Your task to perform on an android device: Go to notification settings Image 0: 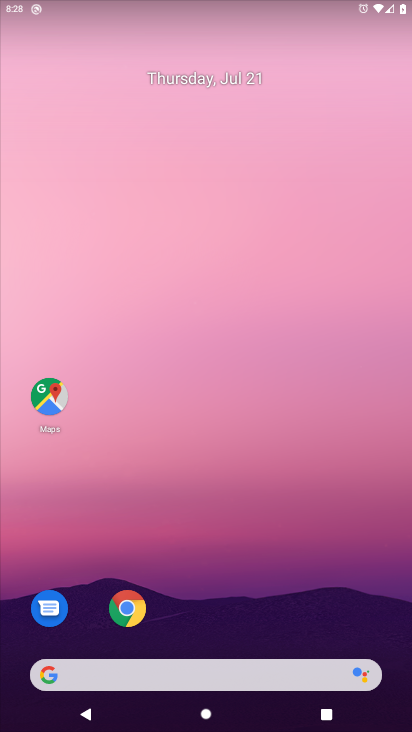
Step 0: drag from (36, 707) to (227, 249)
Your task to perform on an android device: Go to notification settings Image 1: 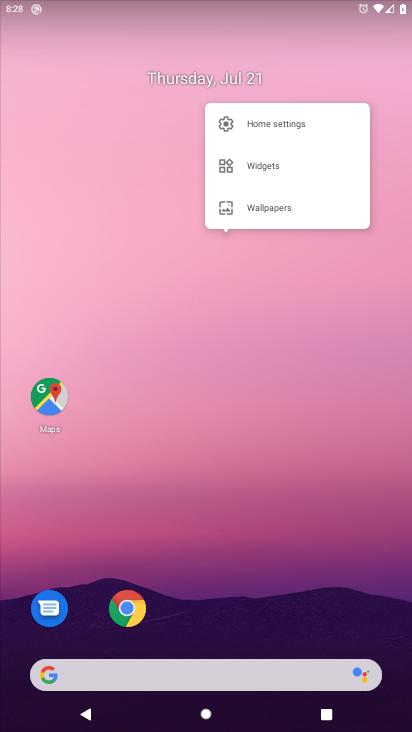
Step 1: drag from (31, 692) to (250, 0)
Your task to perform on an android device: Go to notification settings Image 2: 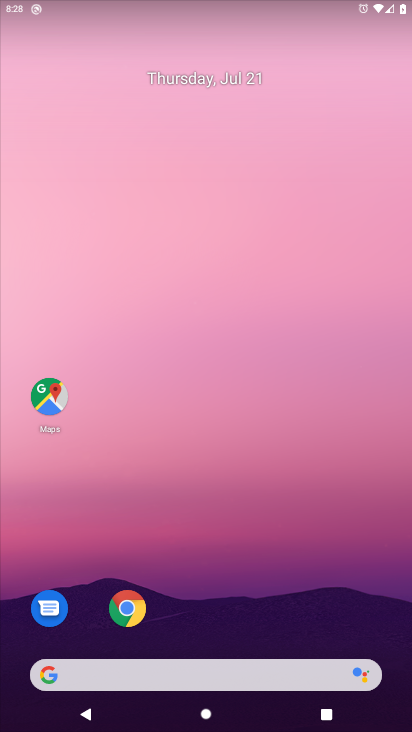
Step 2: drag from (14, 701) to (250, 175)
Your task to perform on an android device: Go to notification settings Image 3: 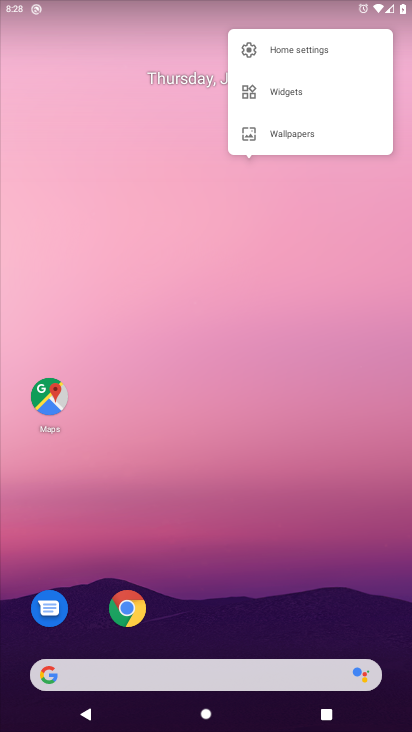
Step 3: drag from (15, 680) to (137, 11)
Your task to perform on an android device: Go to notification settings Image 4: 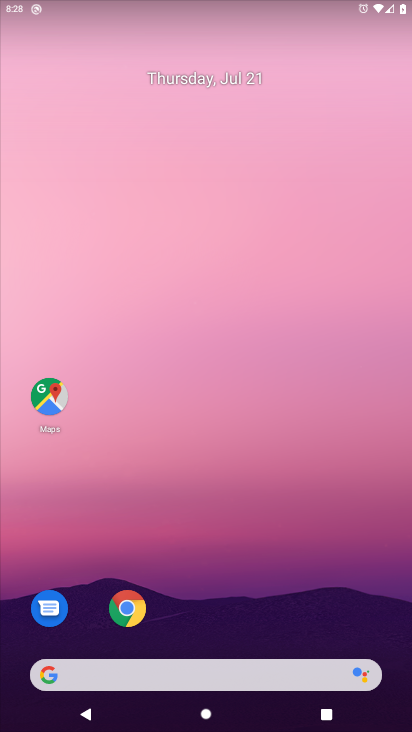
Step 4: drag from (23, 686) to (235, 262)
Your task to perform on an android device: Go to notification settings Image 5: 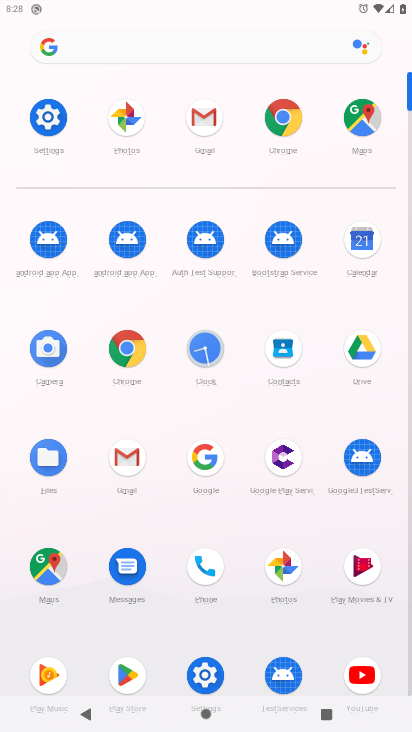
Step 5: click (189, 673)
Your task to perform on an android device: Go to notification settings Image 6: 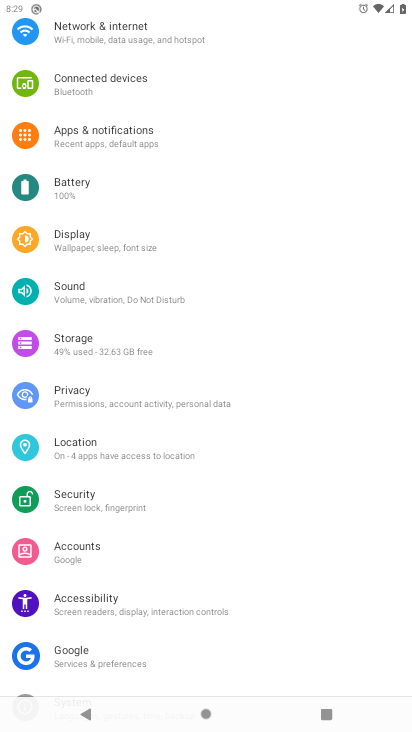
Step 6: click (119, 136)
Your task to perform on an android device: Go to notification settings Image 7: 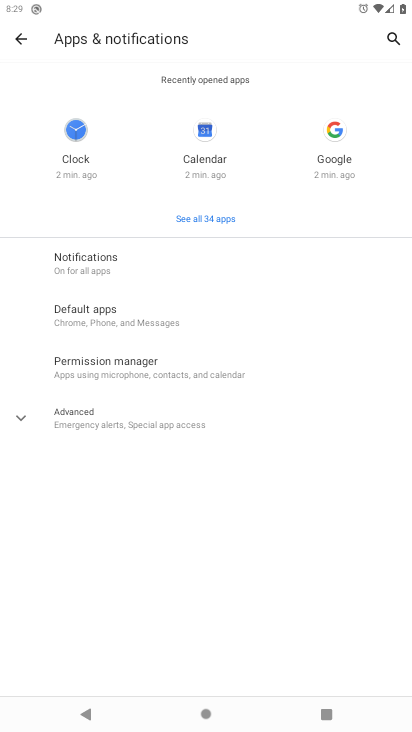
Step 7: task complete